Your task to perform on an android device: Open settings Image 0: 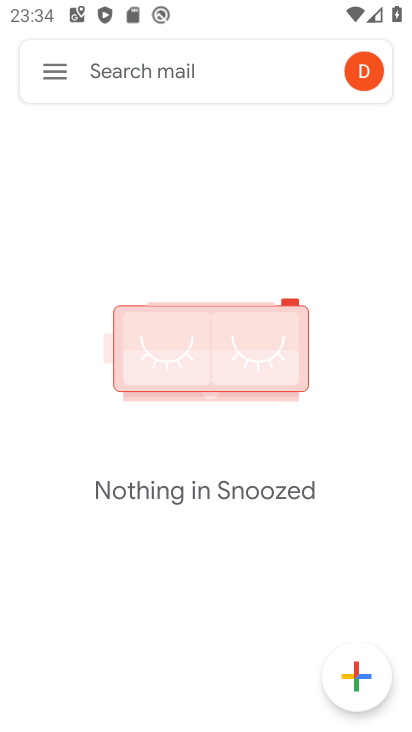
Step 0: press back button
Your task to perform on an android device: Open settings Image 1: 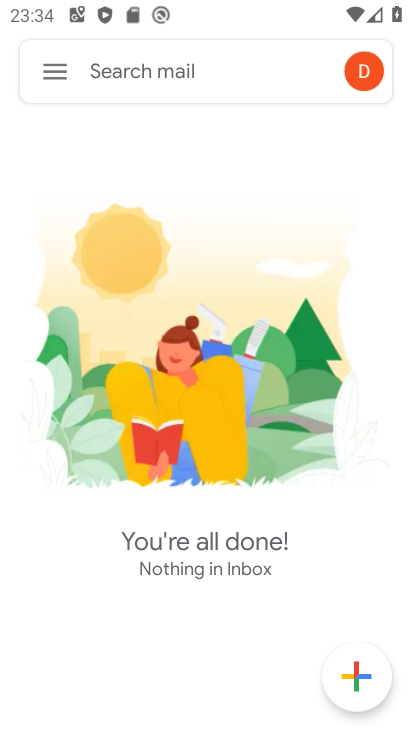
Step 1: click (59, 72)
Your task to perform on an android device: Open settings Image 2: 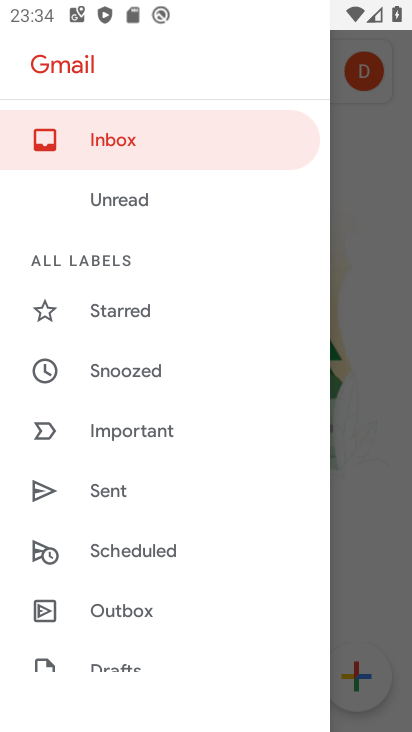
Step 2: click (374, 445)
Your task to perform on an android device: Open settings Image 3: 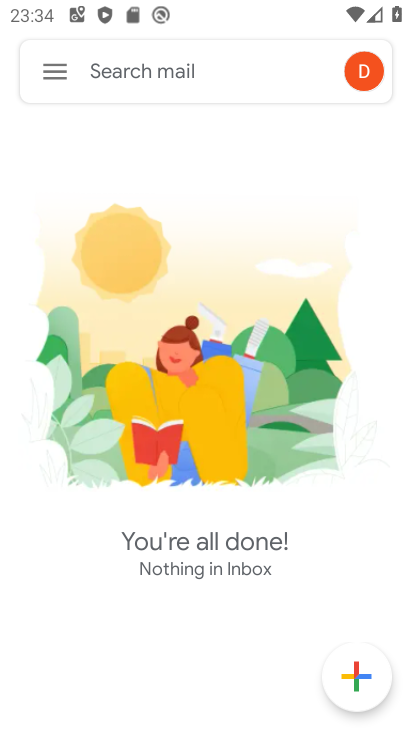
Step 3: press home button
Your task to perform on an android device: Open settings Image 4: 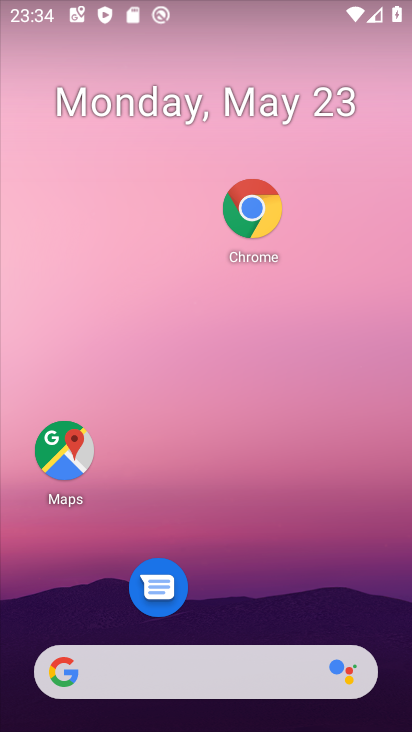
Step 4: drag from (262, 627) to (221, 38)
Your task to perform on an android device: Open settings Image 5: 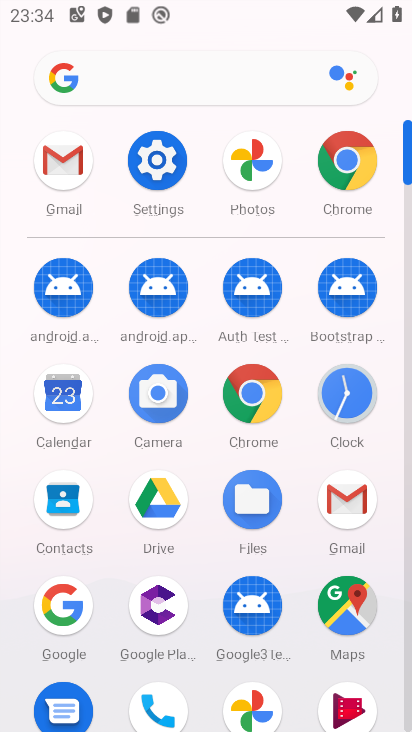
Step 5: click (149, 154)
Your task to perform on an android device: Open settings Image 6: 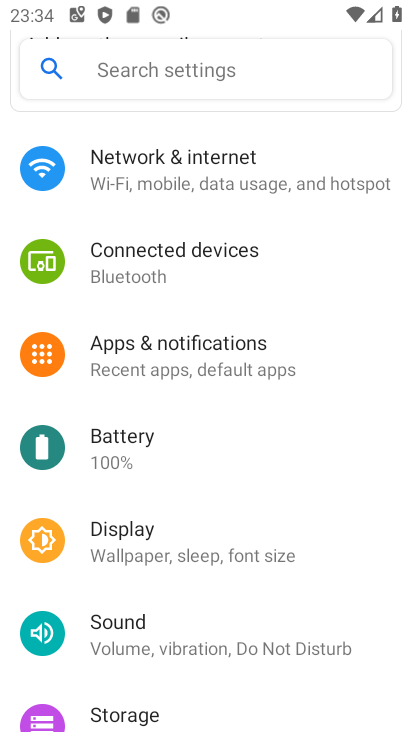
Step 6: task complete